Your task to perform on an android device: turn off airplane mode Image 0: 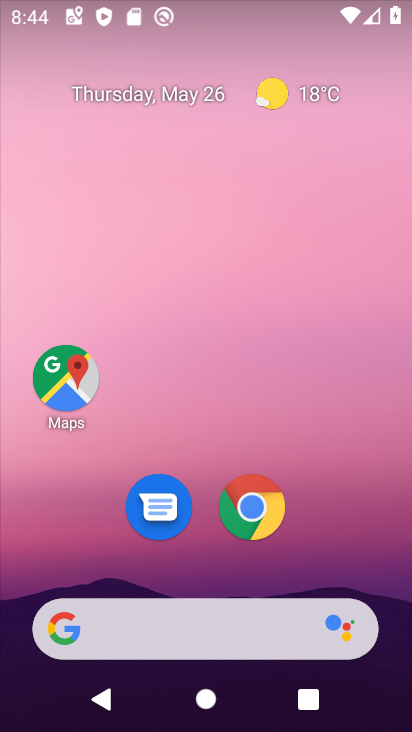
Step 0: press home button
Your task to perform on an android device: turn off airplane mode Image 1: 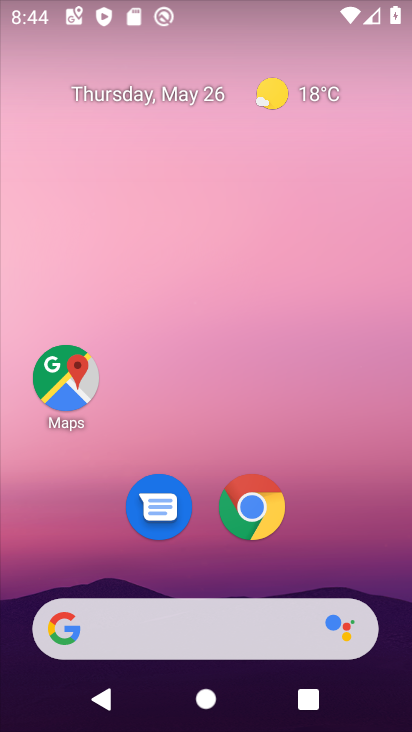
Step 1: drag from (264, 681) to (251, 23)
Your task to perform on an android device: turn off airplane mode Image 2: 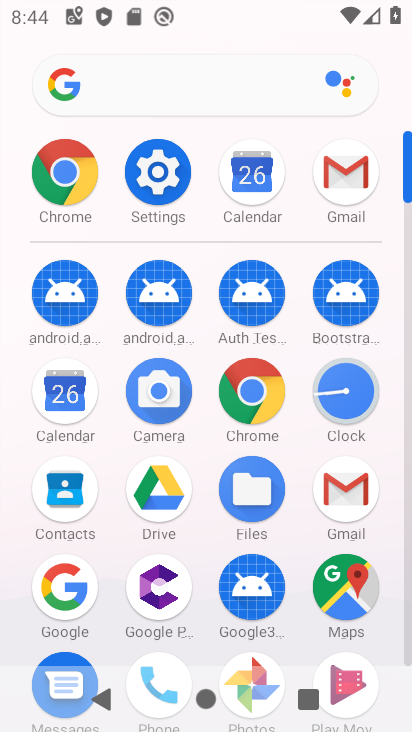
Step 2: click (184, 195)
Your task to perform on an android device: turn off airplane mode Image 3: 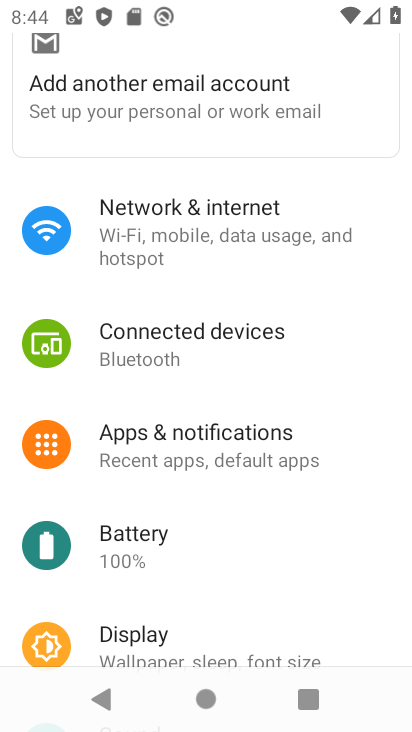
Step 3: click (211, 257)
Your task to perform on an android device: turn off airplane mode Image 4: 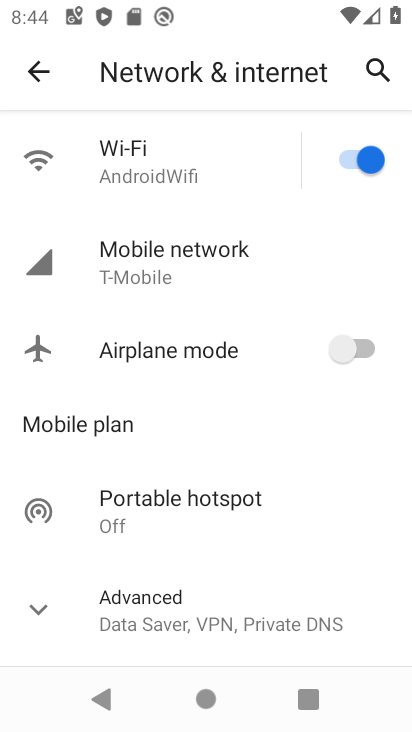
Step 4: click (342, 358)
Your task to perform on an android device: turn off airplane mode Image 5: 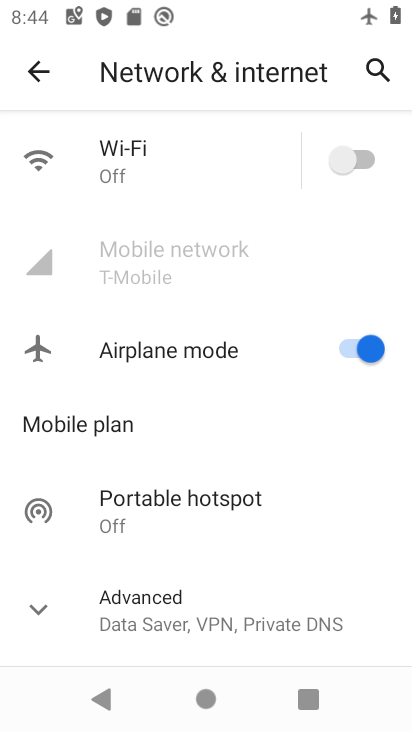
Step 5: click (342, 358)
Your task to perform on an android device: turn off airplane mode Image 6: 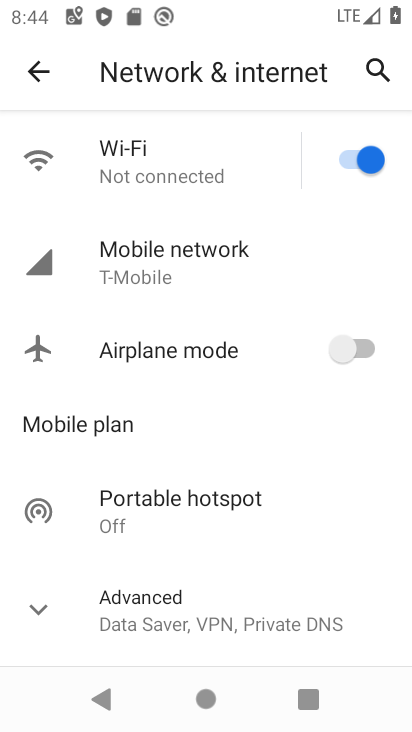
Step 6: task complete